Your task to perform on an android device: turn vacation reply on in the gmail app Image 0: 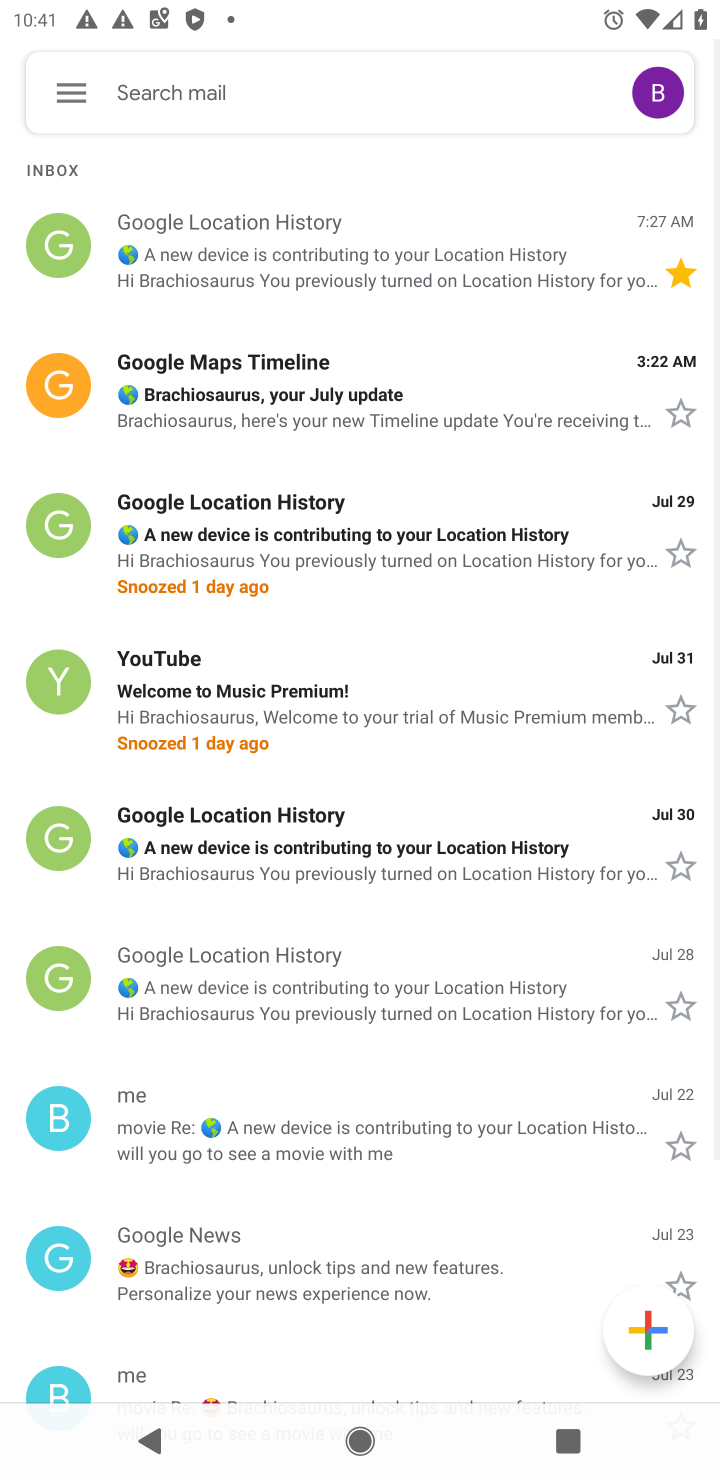
Step 0: press home button
Your task to perform on an android device: turn vacation reply on in the gmail app Image 1: 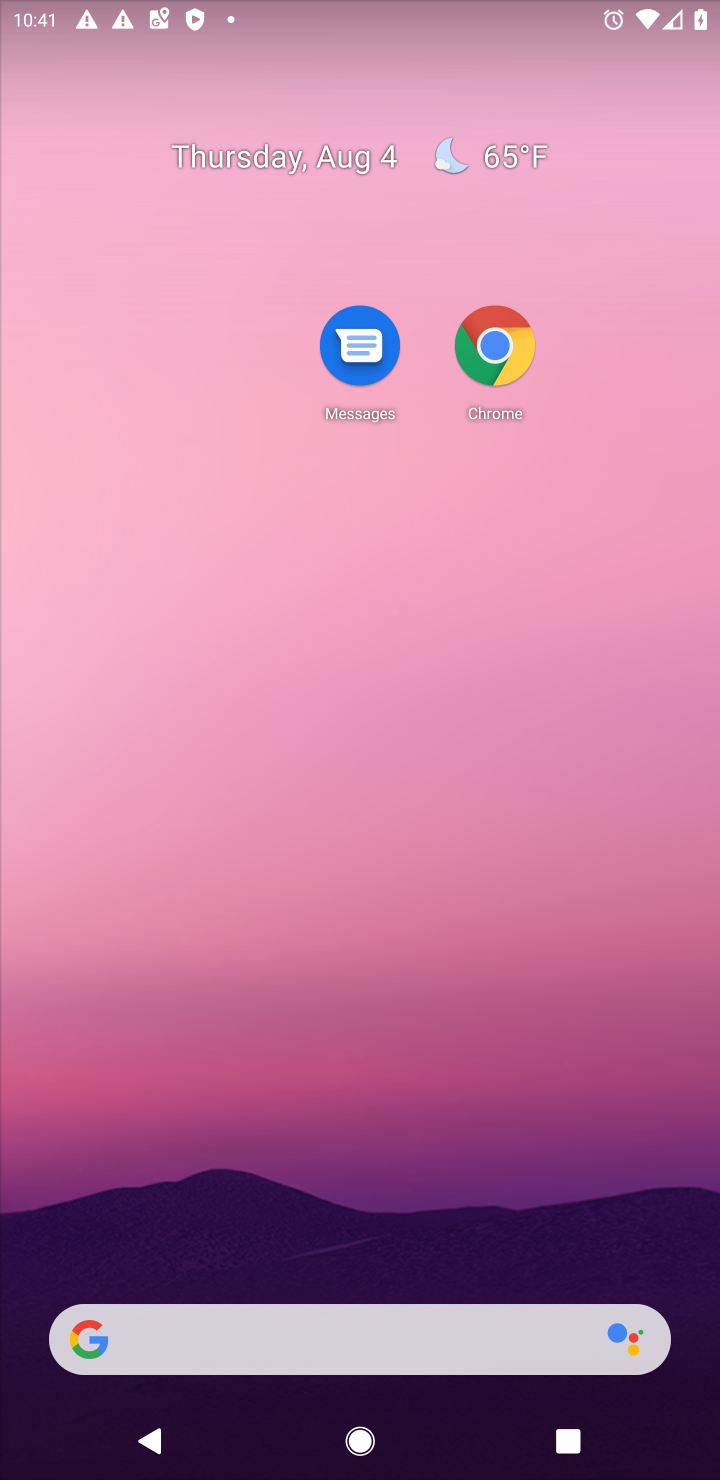
Step 1: drag from (382, 1213) to (530, 177)
Your task to perform on an android device: turn vacation reply on in the gmail app Image 2: 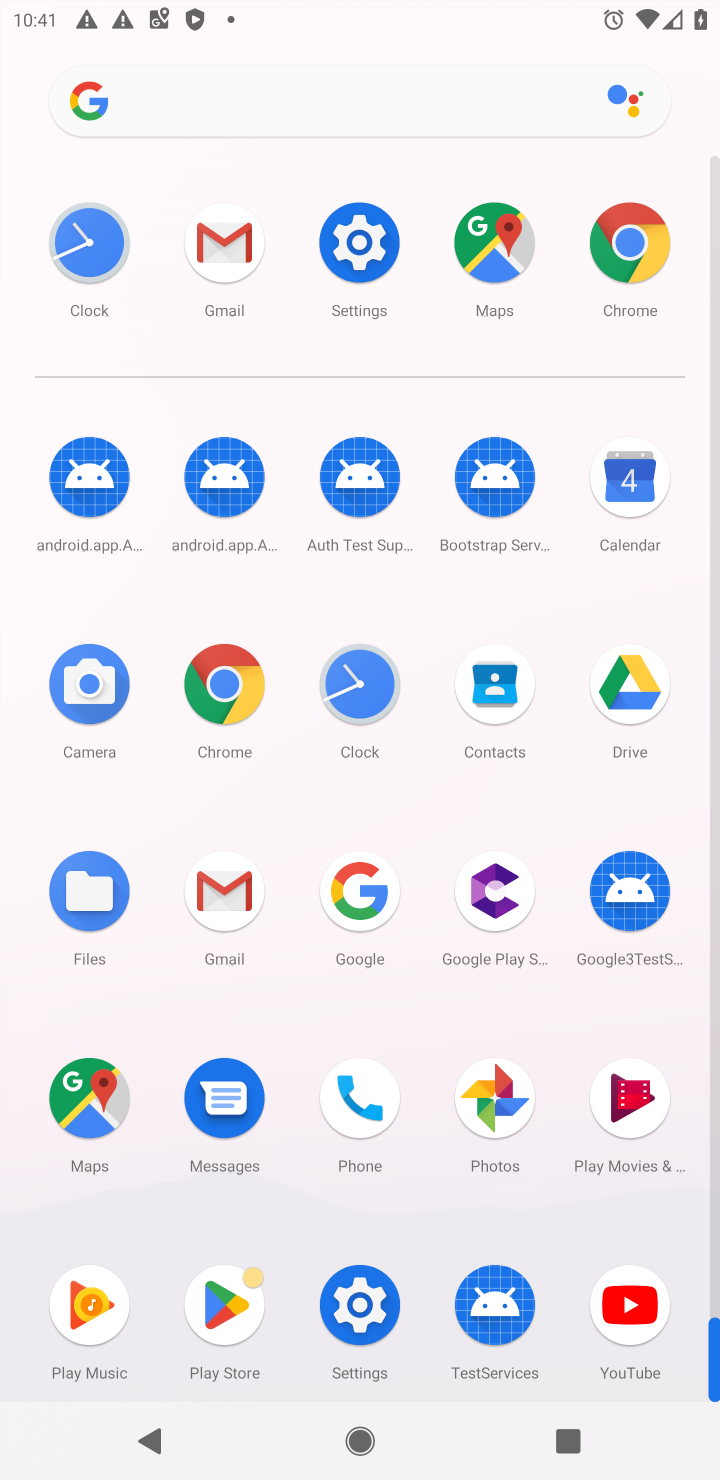
Step 2: click (225, 259)
Your task to perform on an android device: turn vacation reply on in the gmail app Image 3: 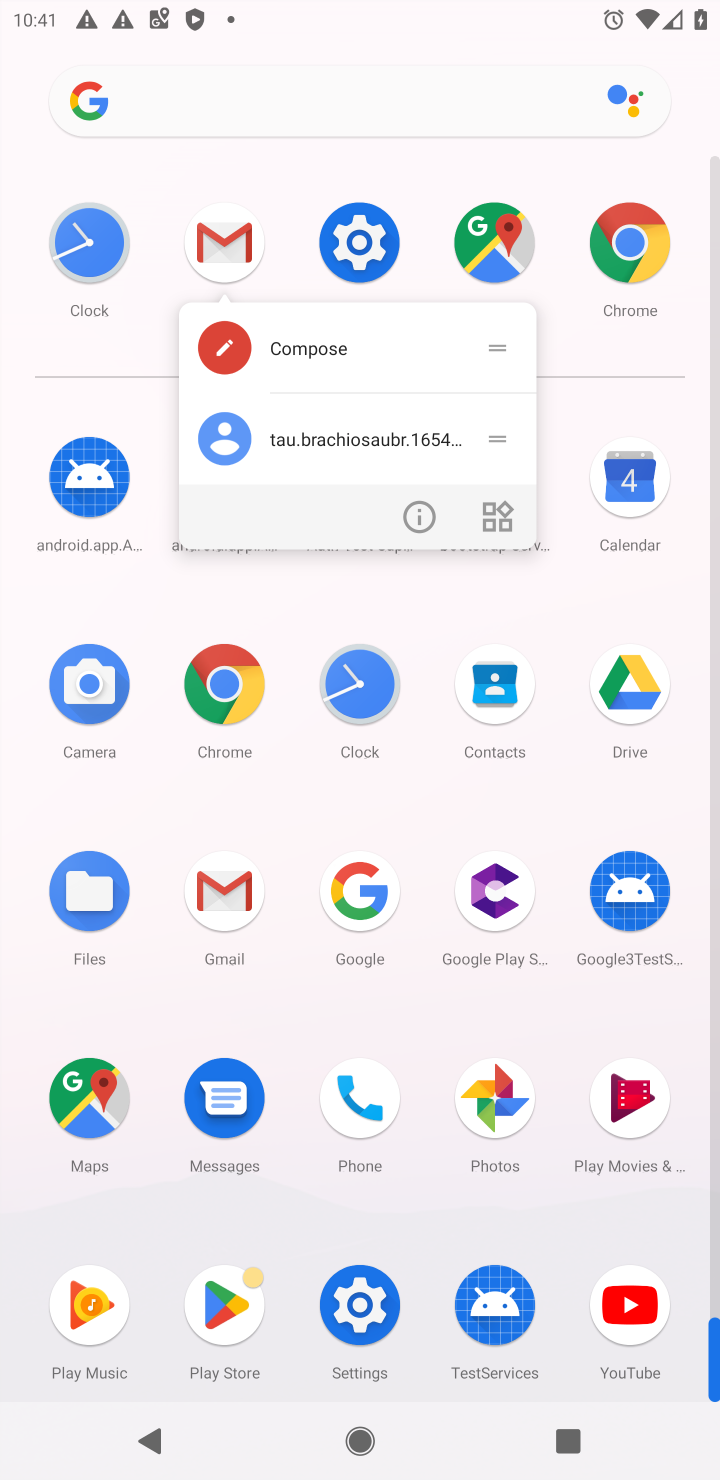
Step 3: click (225, 258)
Your task to perform on an android device: turn vacation reply on in the gmail app Image 4: 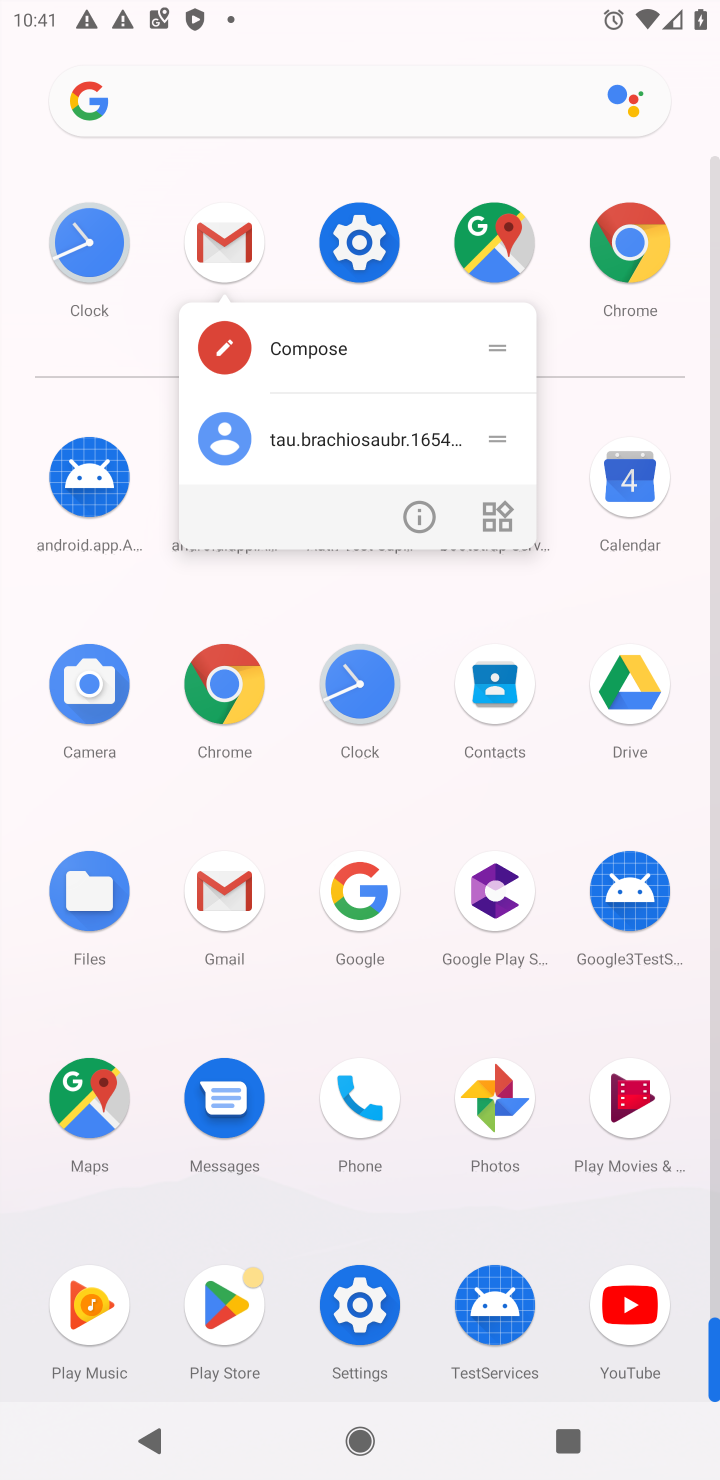
Step 4: click (225, 253)
Your task to perform on an android device: turn vacation reply on in the gmail app Image 5: 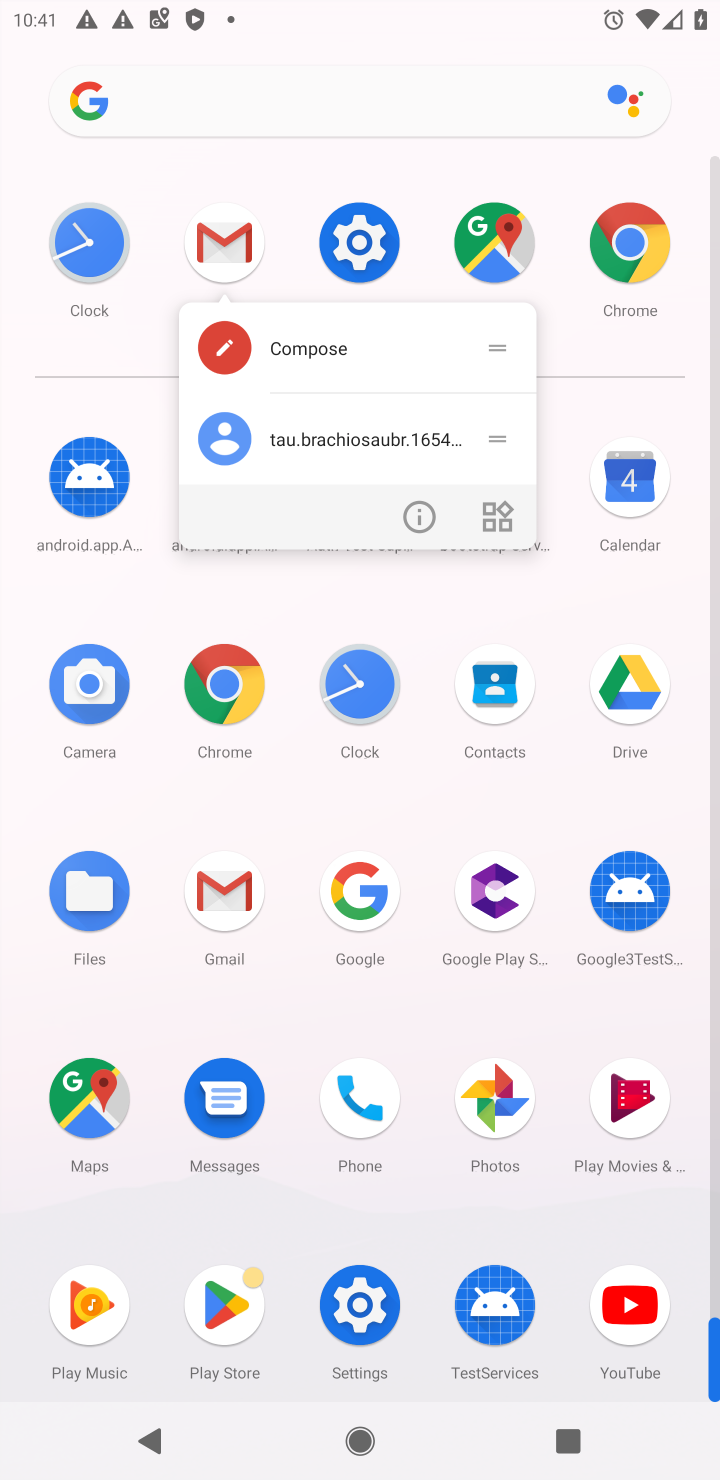
Step 5: click (206, 226)
Your task to perform on an android device: turn vacation reply on in the gmail app Image 6: 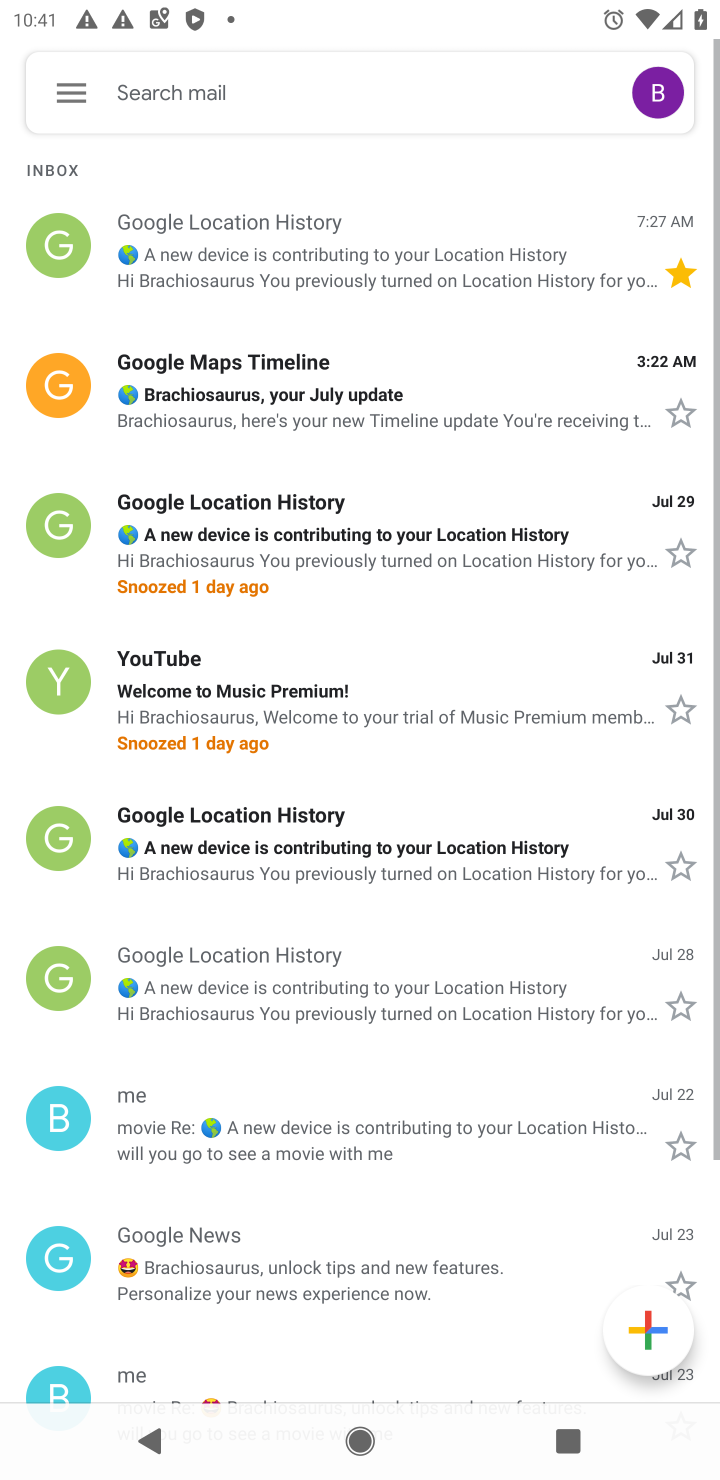
Step 6: click (69, 117)
Your task to perform on an android device: turn vacation reply on in the gmail app Image 7: 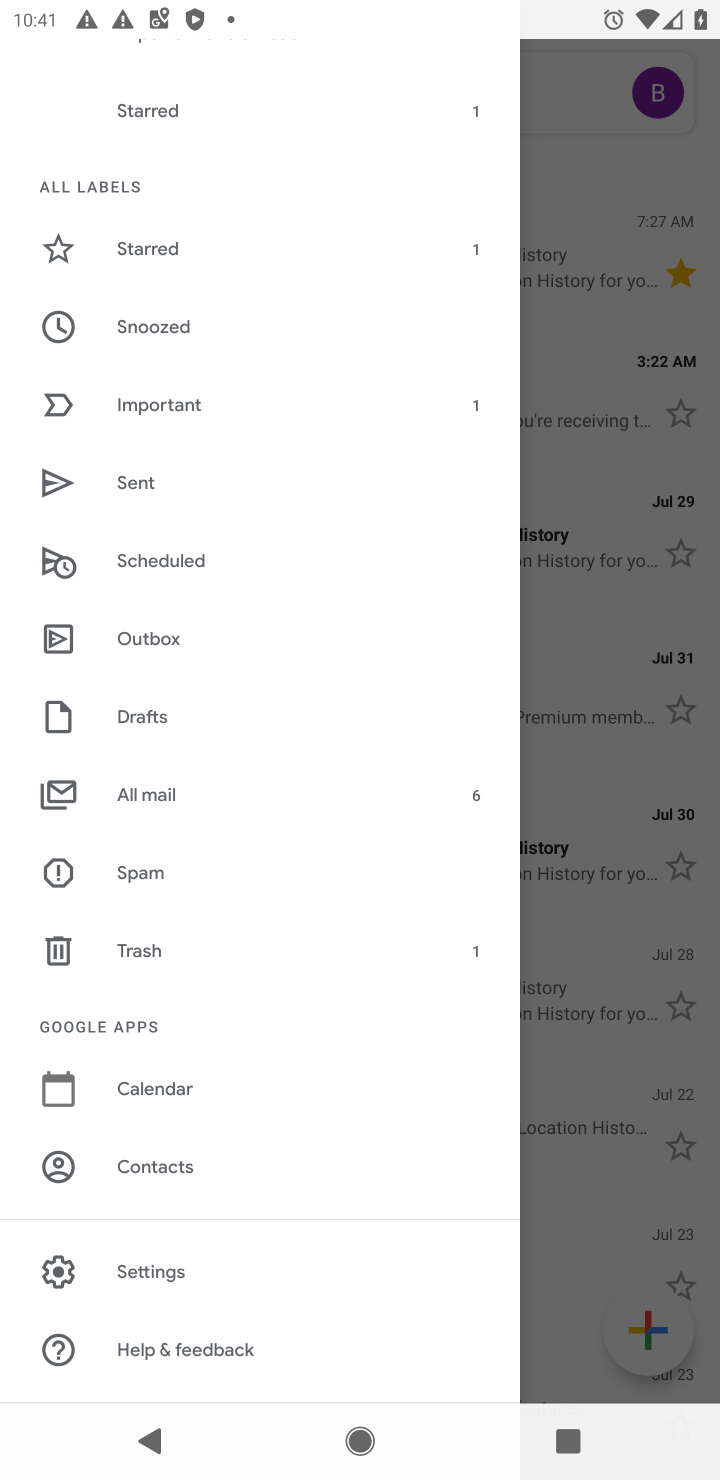
Step 7: drag from (199, 1280) to (408, 187)
Your task to perform on an android device: turn vacation reply on in the gmail app Image 8: 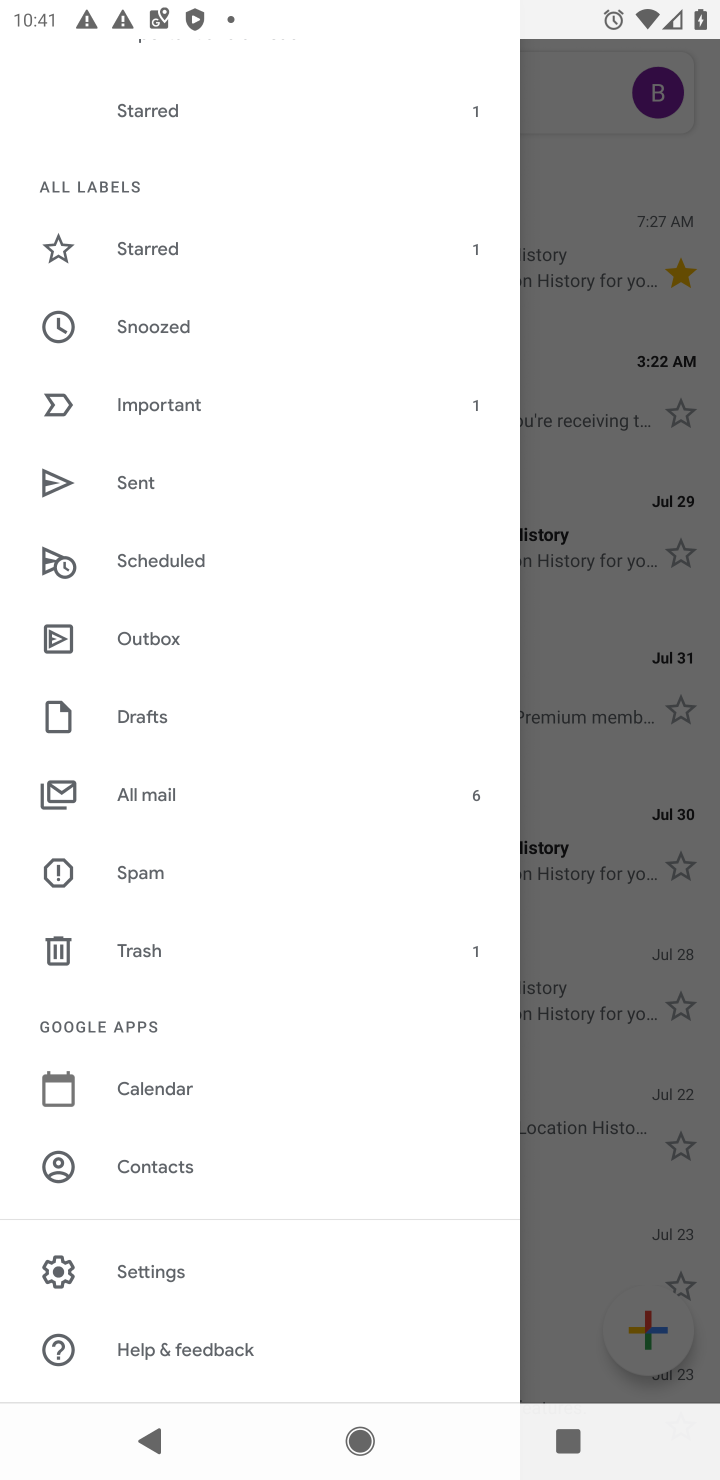
Step 8: click (148, 1274)
Your task to perform on an android device: turn vacation reply on in the gmail app Image 9: 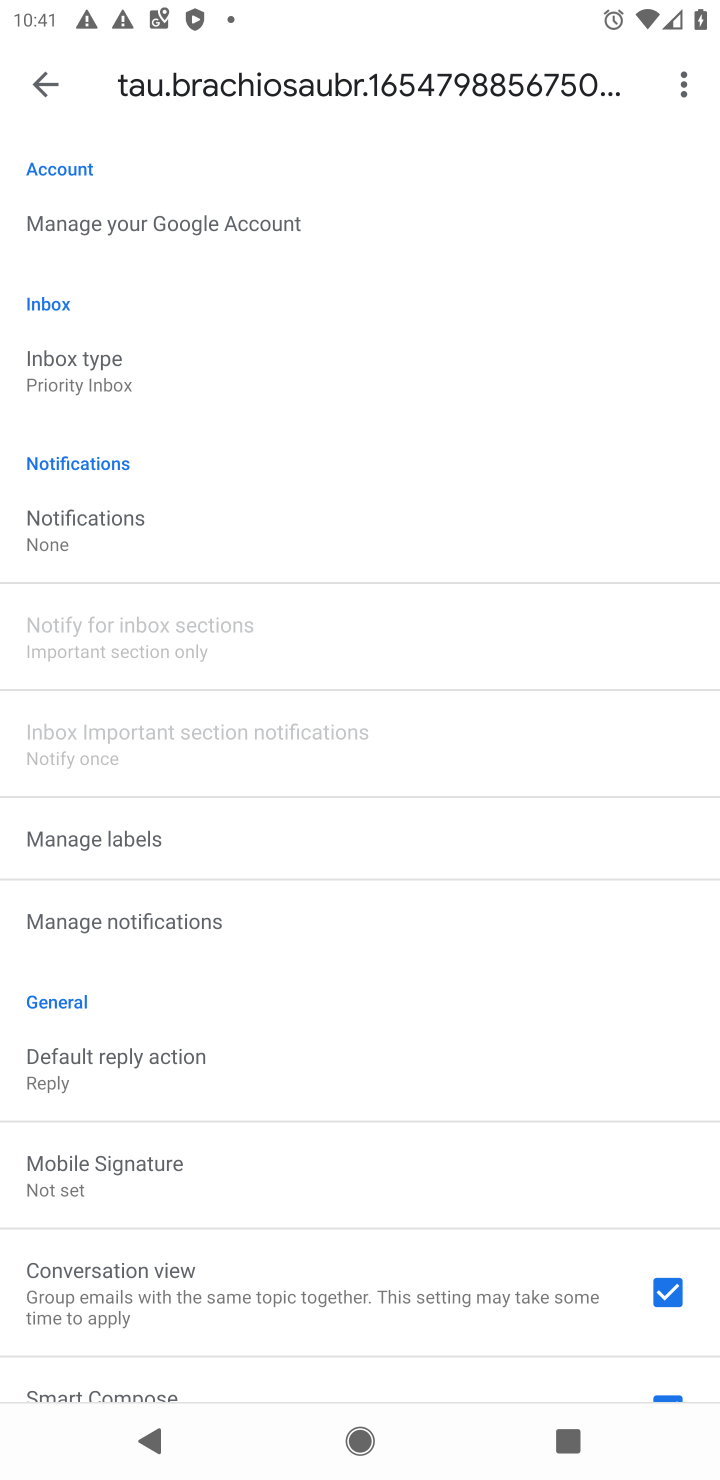
Step 9: drag from (269, 1334) to (409, 351)
Your task to perform on an android device: turn vacation reply on in the gmail app Image 10: 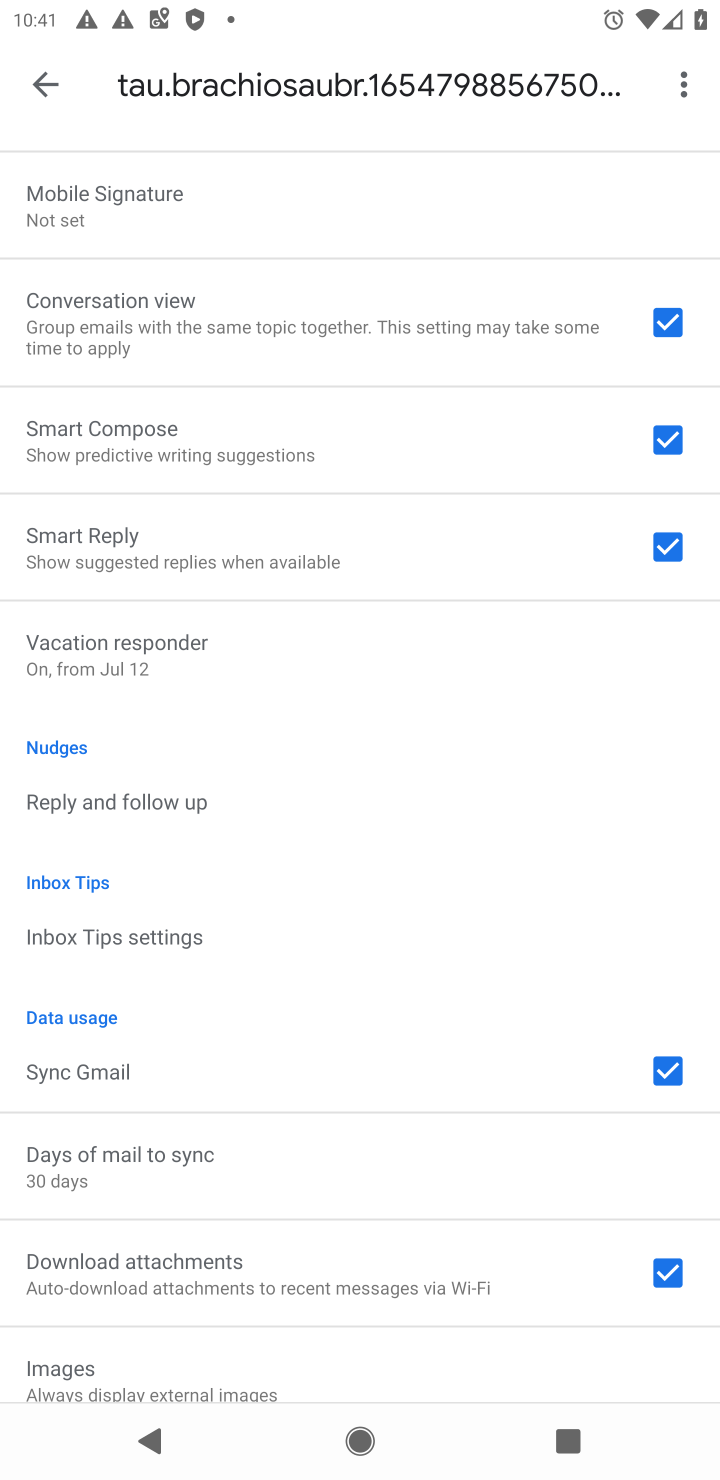
Step 10: drag from (234, 1309) to (337, 532)
Your task to perform on an android device: turn vacation reply on in the gmail app Image 11: 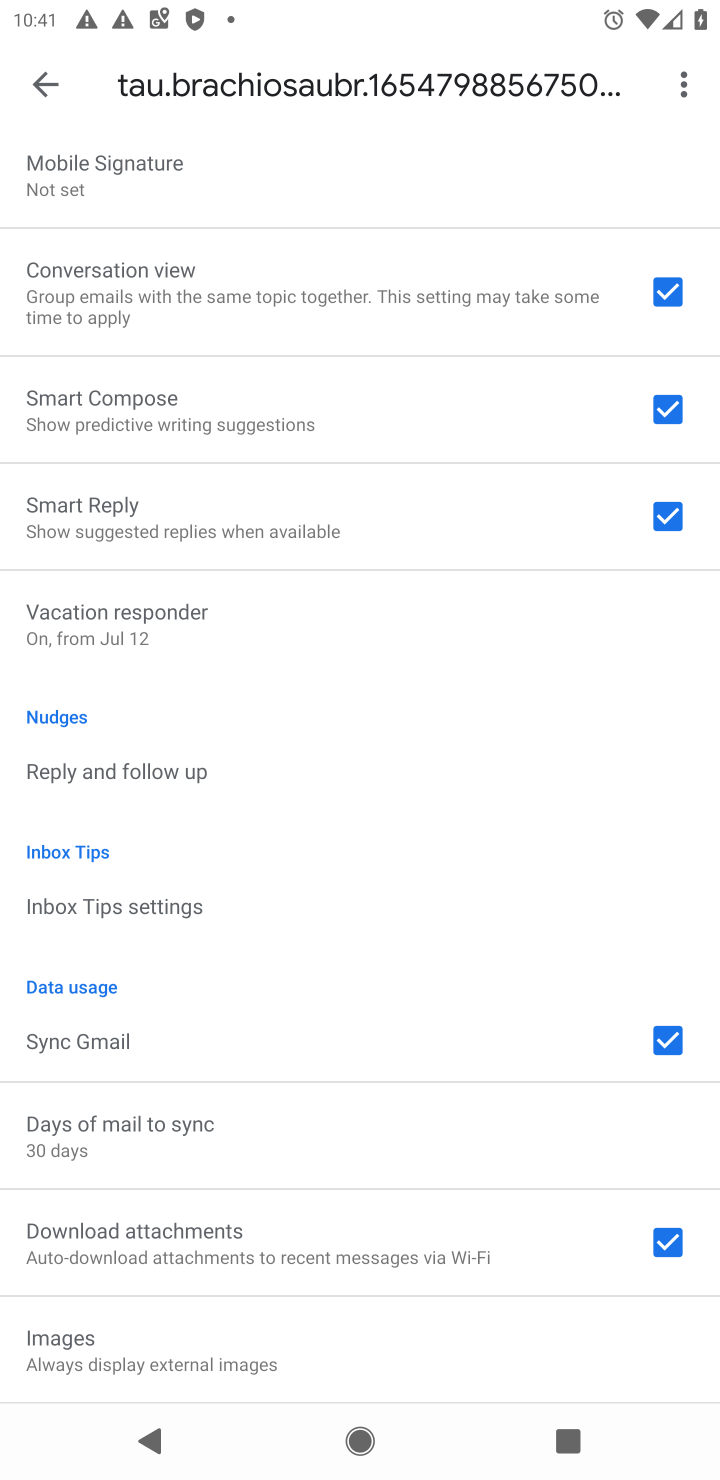
Step 11: drag from (280, 570) to (221, 1233)
Your task to perform on an android device: turn vacation reply on in the gmail app Image 12: 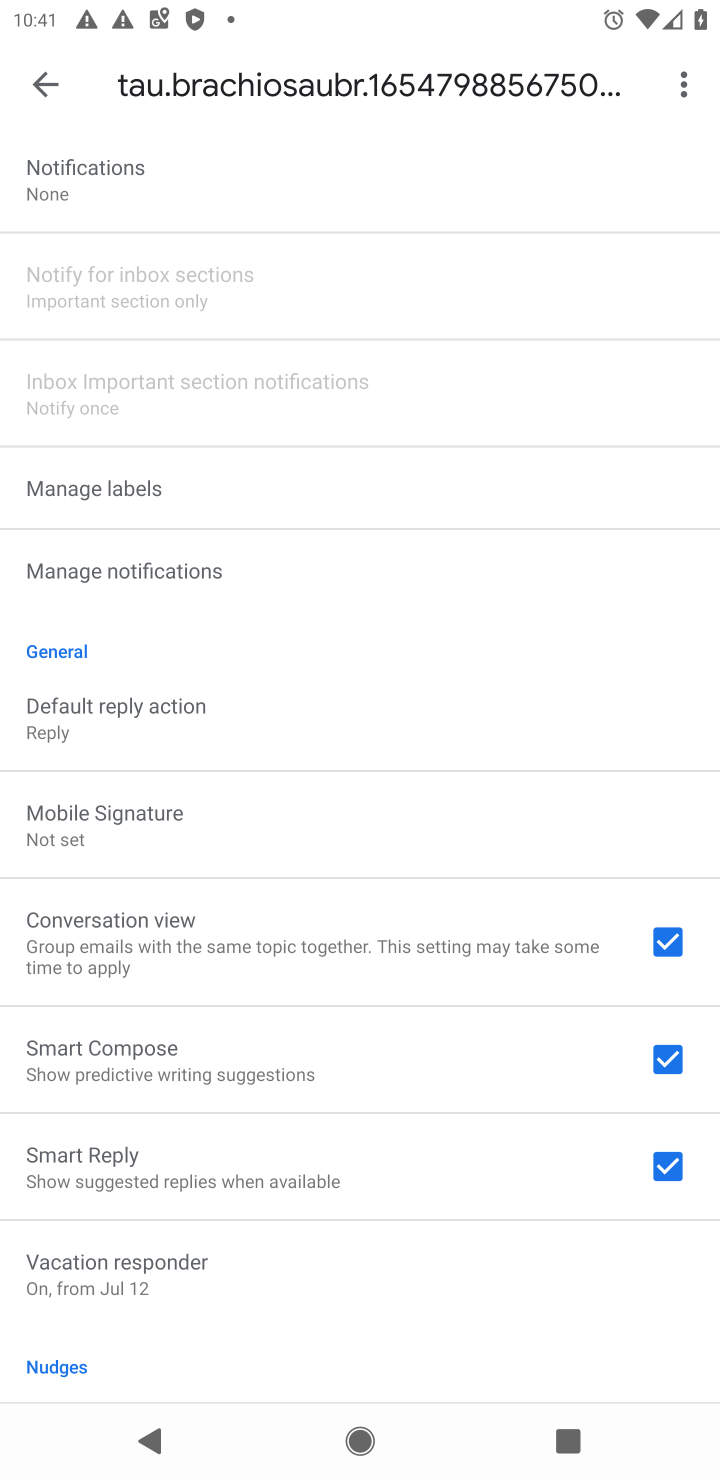
Step 12: click (76, 1277)
Your task to perform on an android device: turn vacation reply on in the gmail app Image 13: 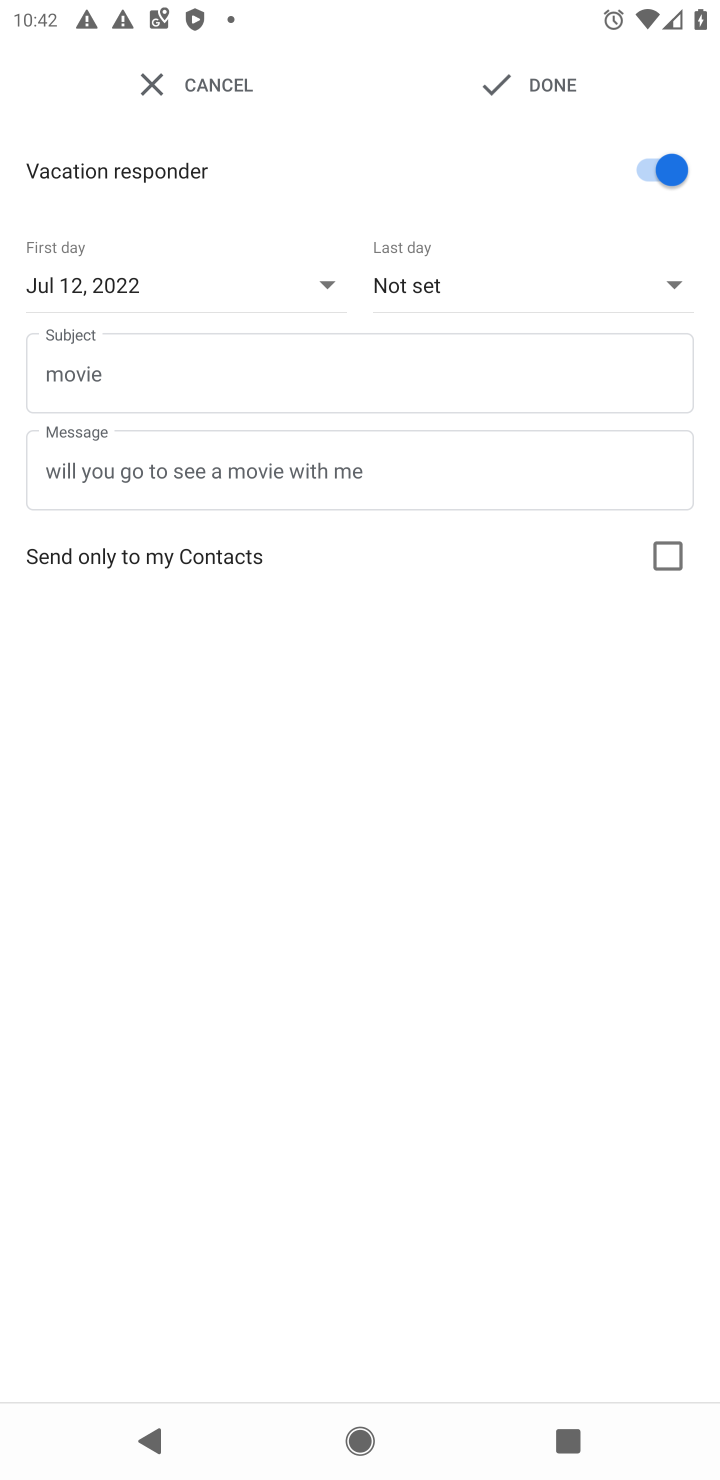
Step 13: task complete